Your task to perform on an android device: turn on sleep mode Image 0: 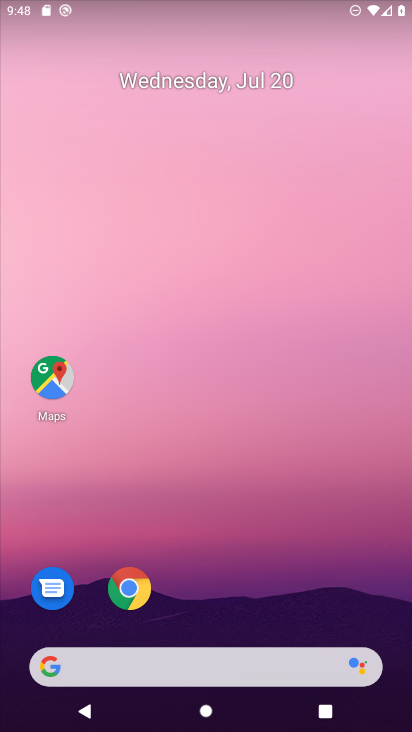
Step 0: drag from (175, 630) to (160, 9)
Your task to perform on an android device: turn on sleep mode Image 1: 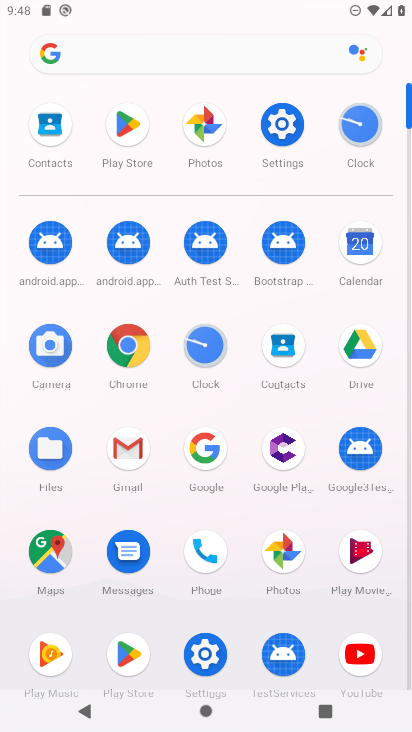
Step 1: click (285, 121)
Your task to perform on an android device: turn on sleep mode Image 2: 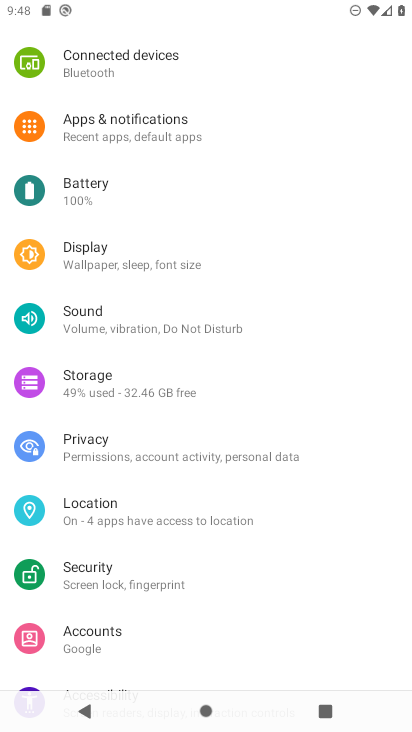
Step 2: task complete